Your task to perform on an android device: check battery use Image 0: 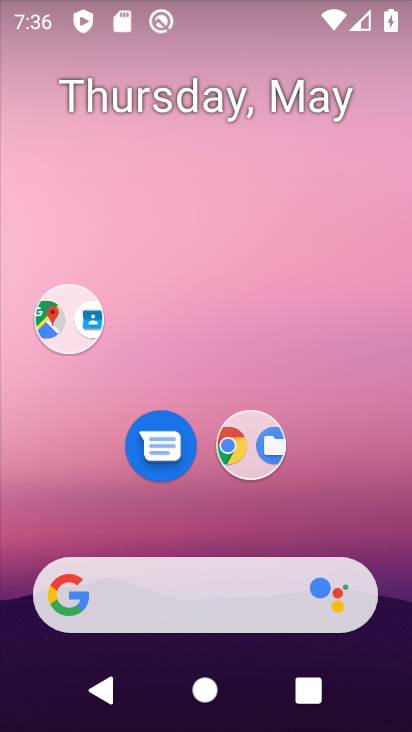
Step 0: drag from (338, 638) to (376, 119)
Your task to perform on an android device: check battery use Image 1: 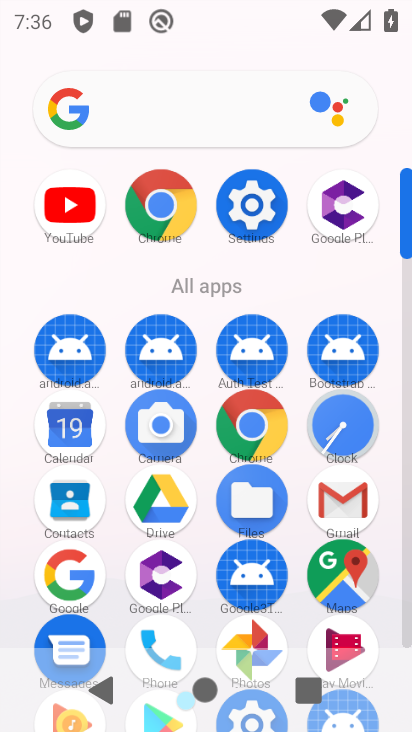
Step 1: click (257, 228)
Your task to perform on an android device: check battery use Image 2: 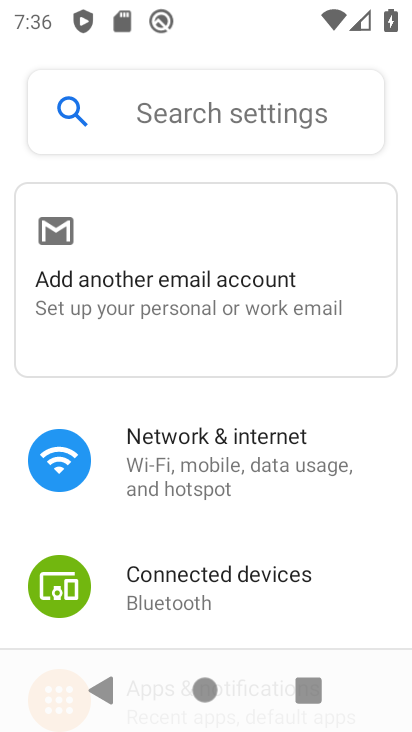
Step 2: drag from (288, 478) to (291, 199)
Your task to perform on an android device: check battery use Image 3: 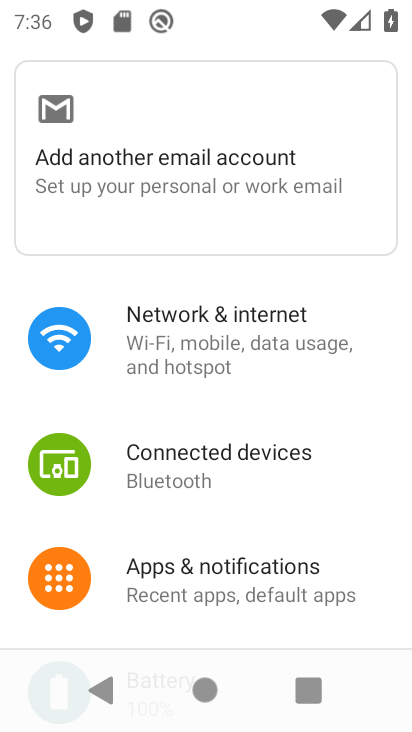
Step 3: drag from (176, 569) to (199, 161)
Your task to perform on an android device: check battery use Image 4: 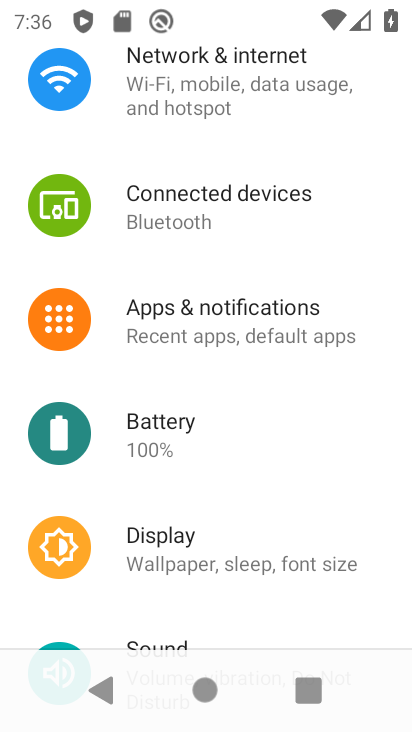
Step 4: click (190, 415)
Your task to perform on an android device: check battery use Image 5: 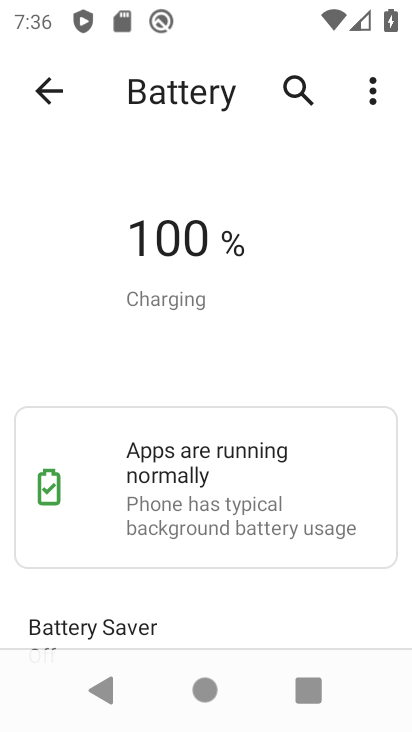
Step 5: task complete